Your task to perform on an android device: Open Chrome and go to settings Image 0: 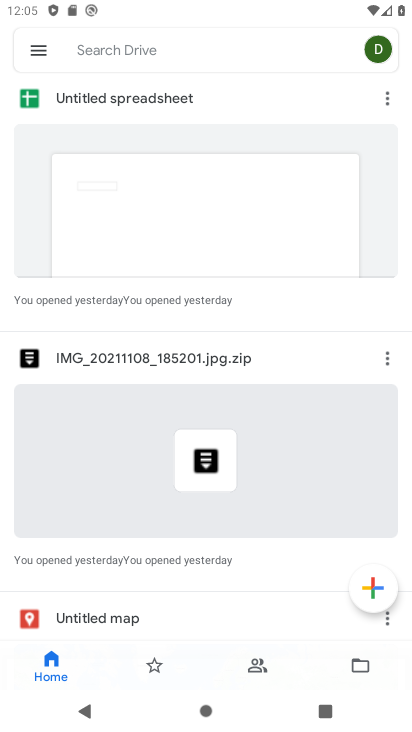
Step 0: press home button
Your task to perform on an android device: Open Chrome and go to settings Image 1: 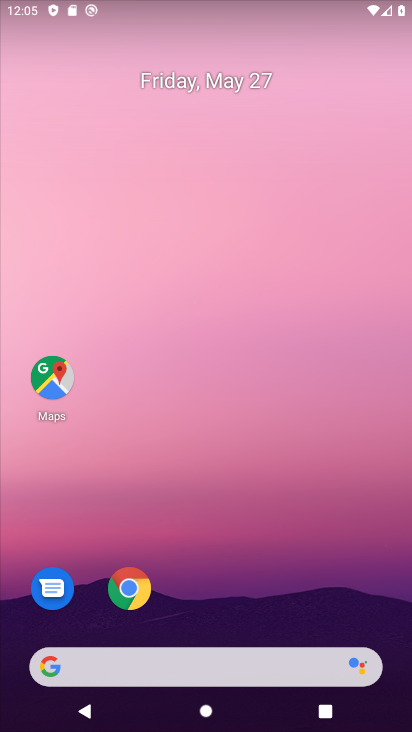
Step 1: click (135, 583)
Your task to perform on an android device: Open Chrome and go to settings Image 2: 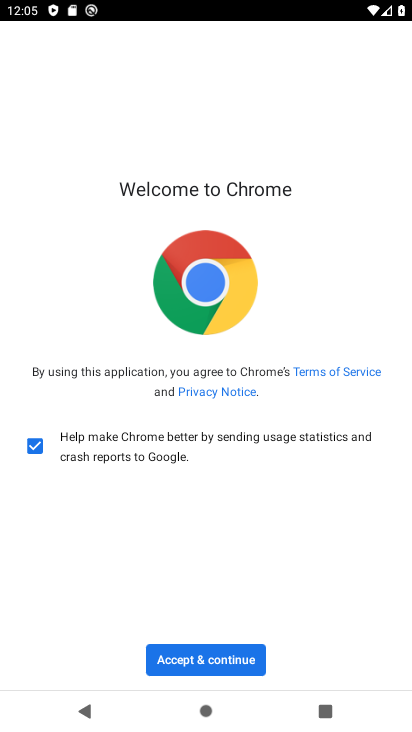
Step 2: click (218, 658)
Your task to perform on an android device: Open Chrome and go to settings Image 3: 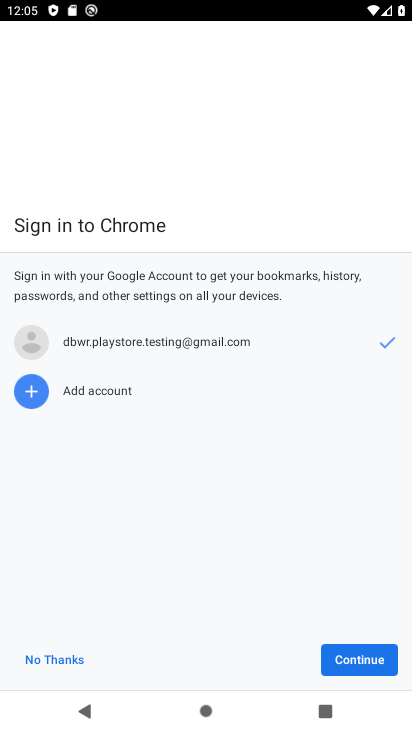
Step 3: click (354, 658)
Your task to perform on an android device: Open Chrome and go to settings Image 4: 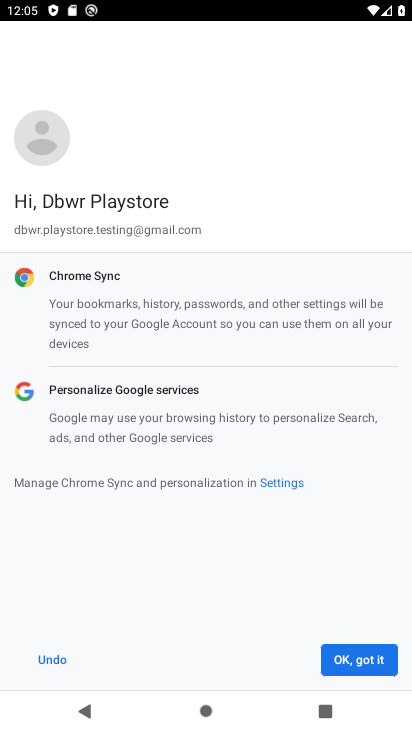
Step 4: click (354, 658)
Your task to perform on an android device: Open Chrome and go to settings Image 5: 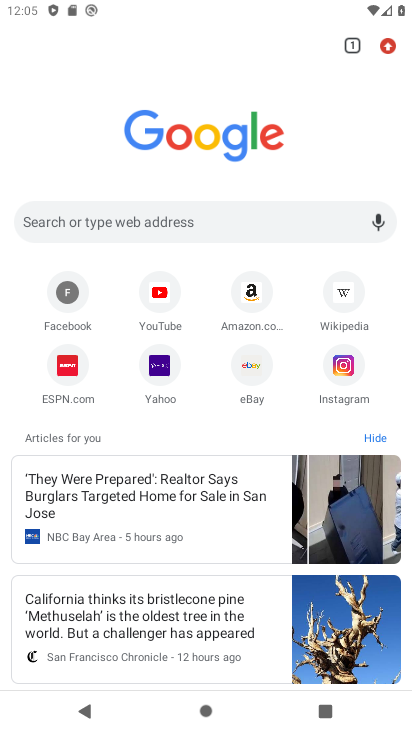
Step 5: click (387, 42)
Your task to perform on an android device: Open Chrome and go to settings Image 6: 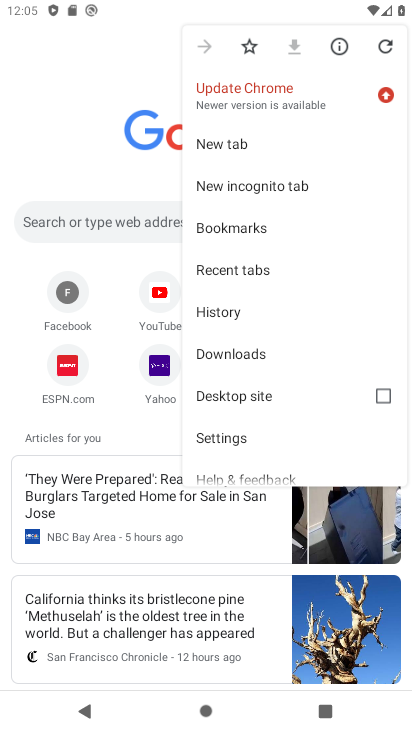
Step 6: click (239, 433)
Your task to perform on an android device: Open Chrome and go to settings Image 7: 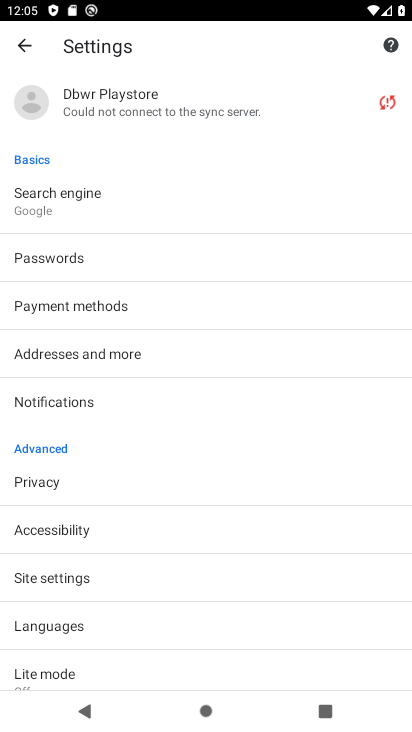
Step 7: task complete